Your task to perform on an android device: Go to ESPN.com Image 0: 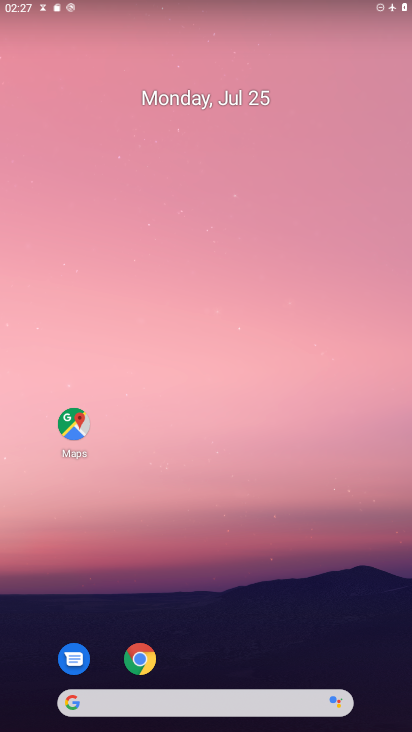
Step 0: drag from (219, 623) to (221, 239)
Your task to perform on an android device: Go to ESPN.com Image 1: 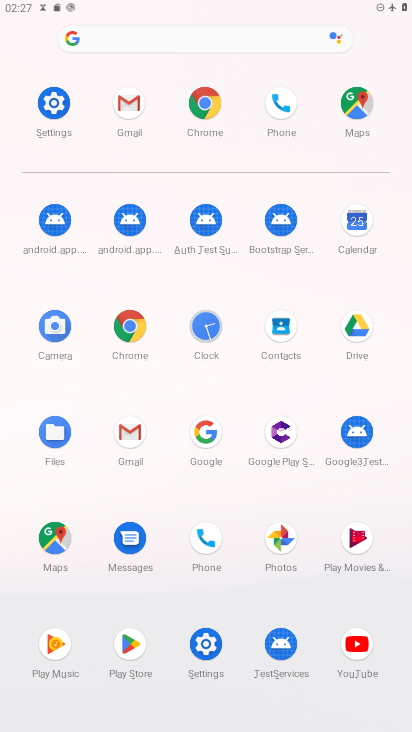
Step 1: click (135, 331)
Your task to perform on an android device: Go to ESPN.com Image 2: 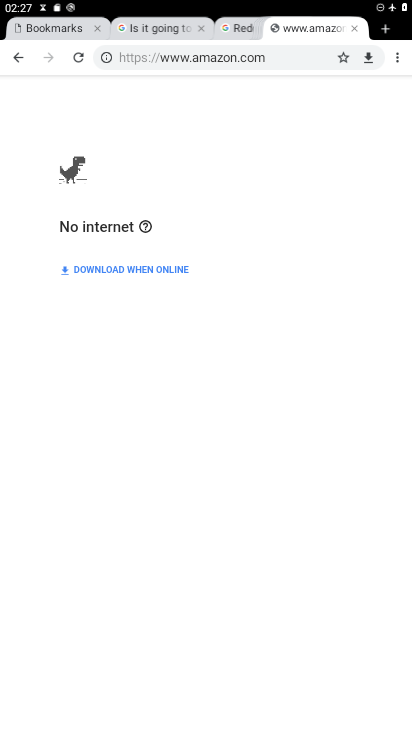
Step 2: click (387, 28)
Your task to perform on an android device: Go to ESPN.com Image 3: 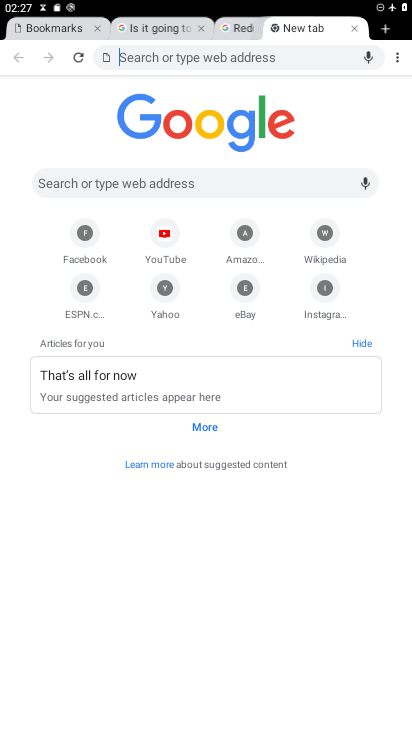
Step 3: click (77, 288)
Your task to perform on an android device: Go to ESPN.com Image 4: 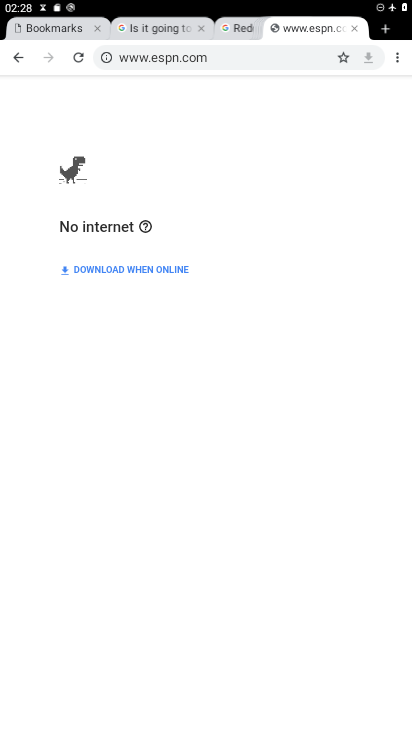
Step 4: task complete